Your task to perform on an android device: Add "acer nitro" to the cart on ebay.com Image 0: 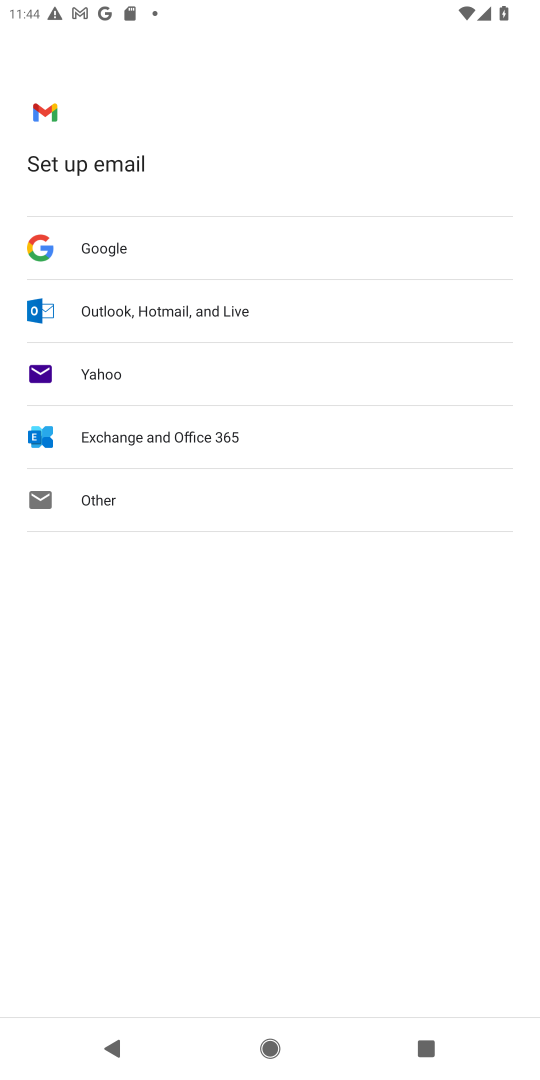
Step 0: press home button
Your task to perform on an android device: Add "acer nitro" to the cart on ebay.com Image 1: 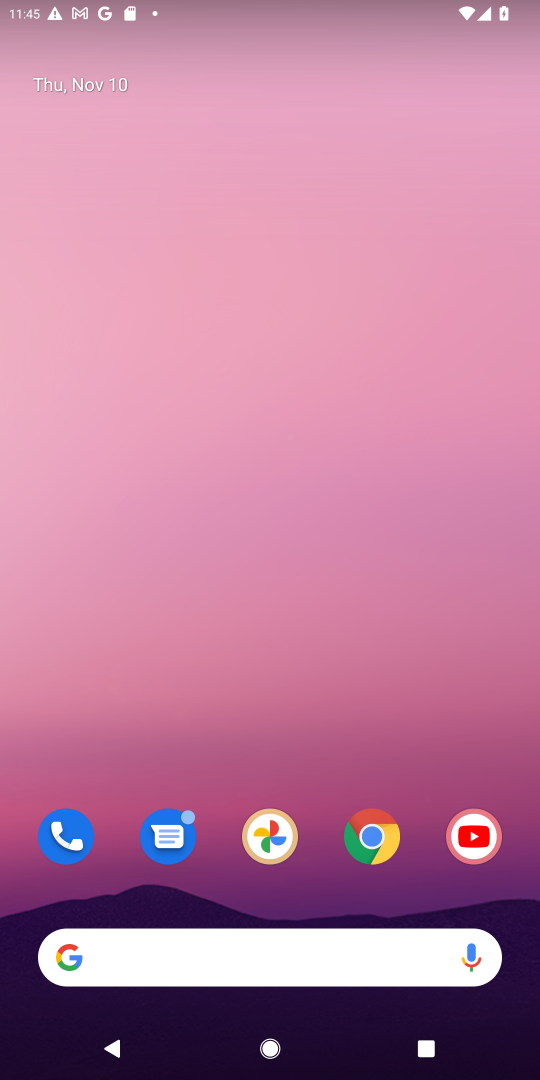
Step 1: click (262, 960)
Your task to perform on an android device: Add "acer nitro" to the cart on ebay.com Image 2: 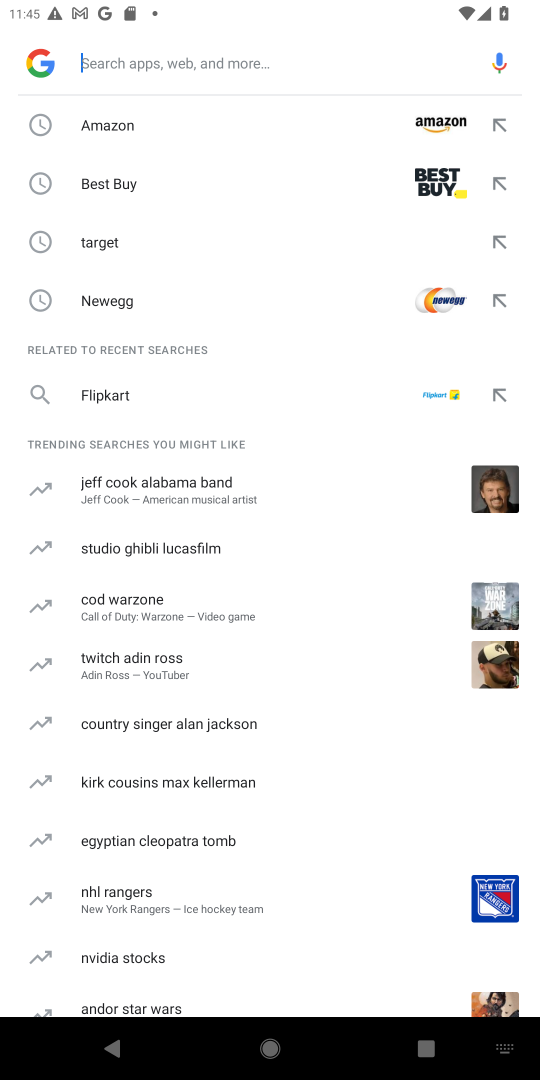
Step 2: type "ebay.com"
Your task to perform on an android device: Add "acer nitro" to the cart on ebay.com Image 3: 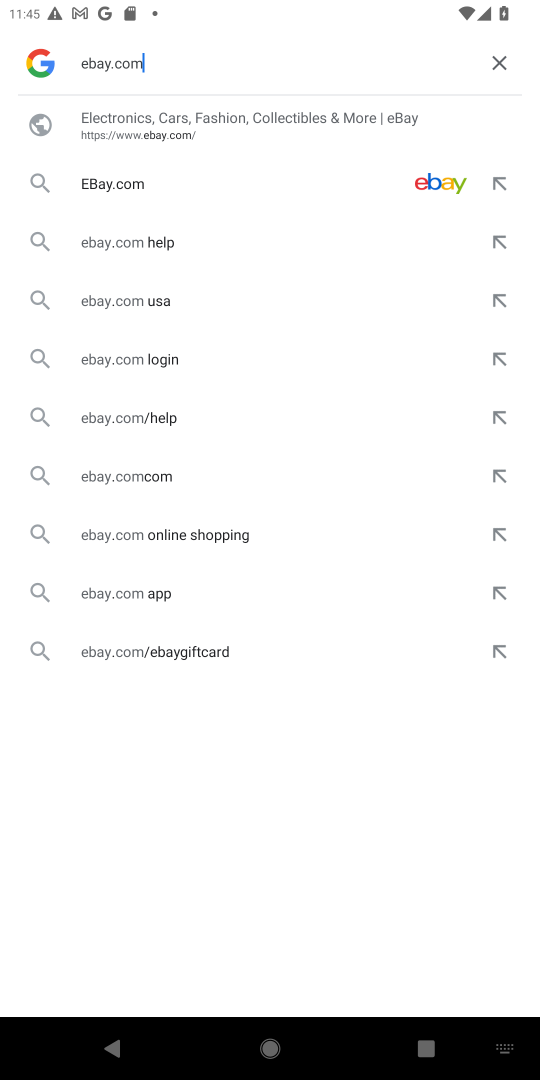
Step 3: click (306, 174)
Your task to perform on an android device: Add "acer nitro" to the cart on ebay.com Image 4: 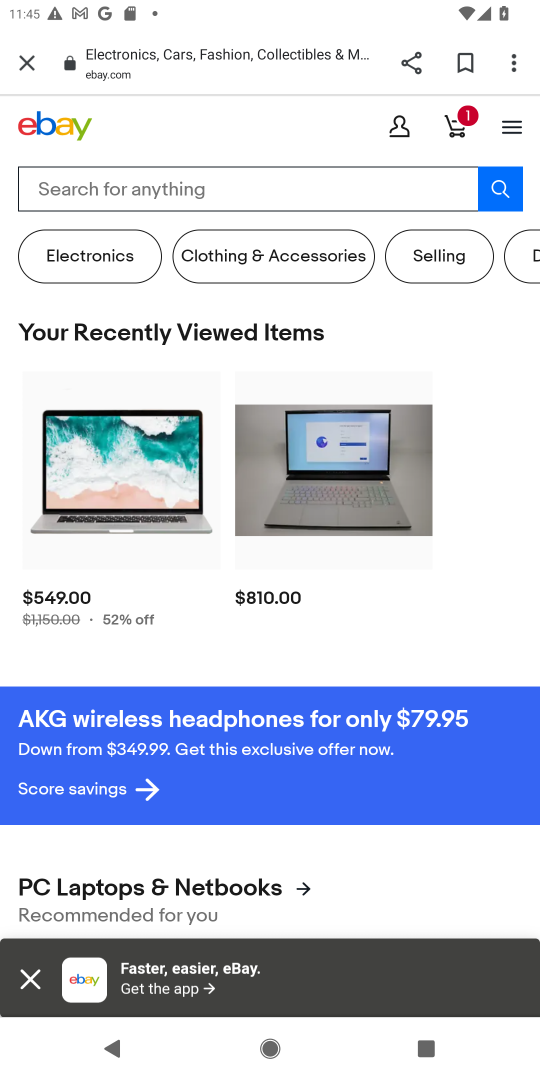
Step 4: click (213, 189)
Your task to perform on an android device: Add "acer nitro" to the cart on ebay.com Image 5: 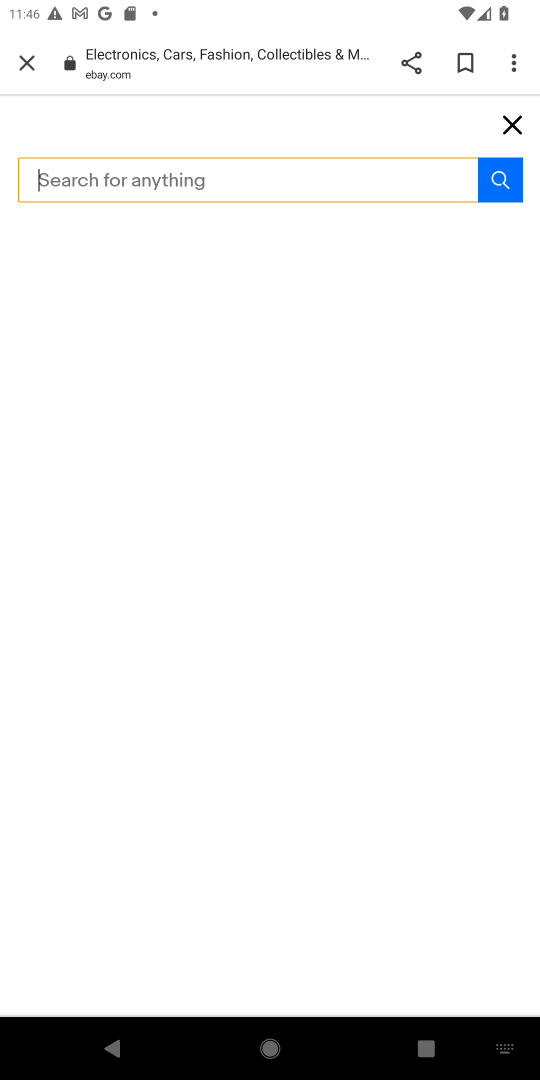
Step 5: type "acer nitro"
Your task to perform on an android device: Add "acer nitro" to the cart on ebay.com Image 6: 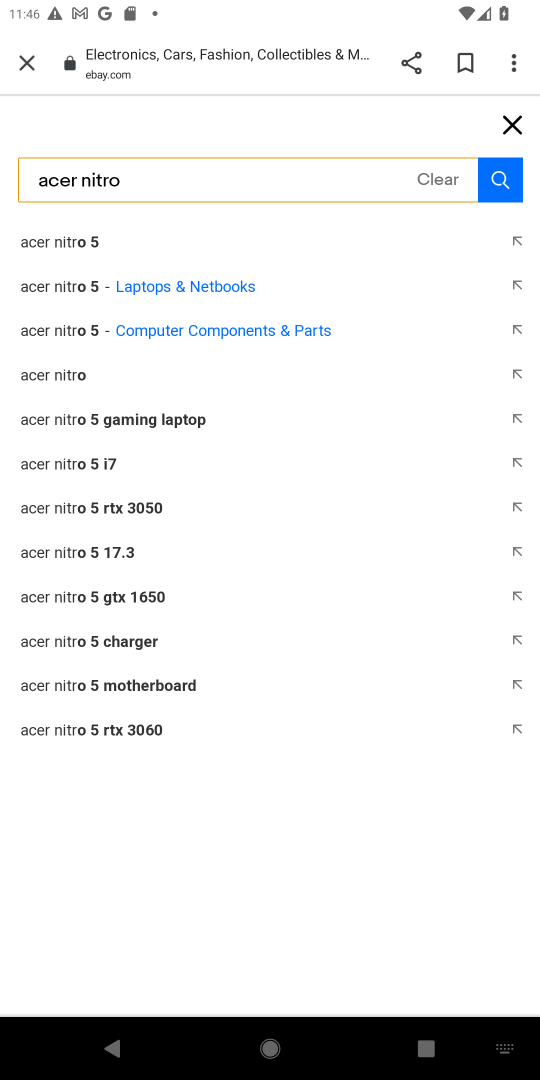
Step 6: click (45, 378)
Your task to perform on an android device: Add "acer nitro" to the cart on ebay.com Image 7: 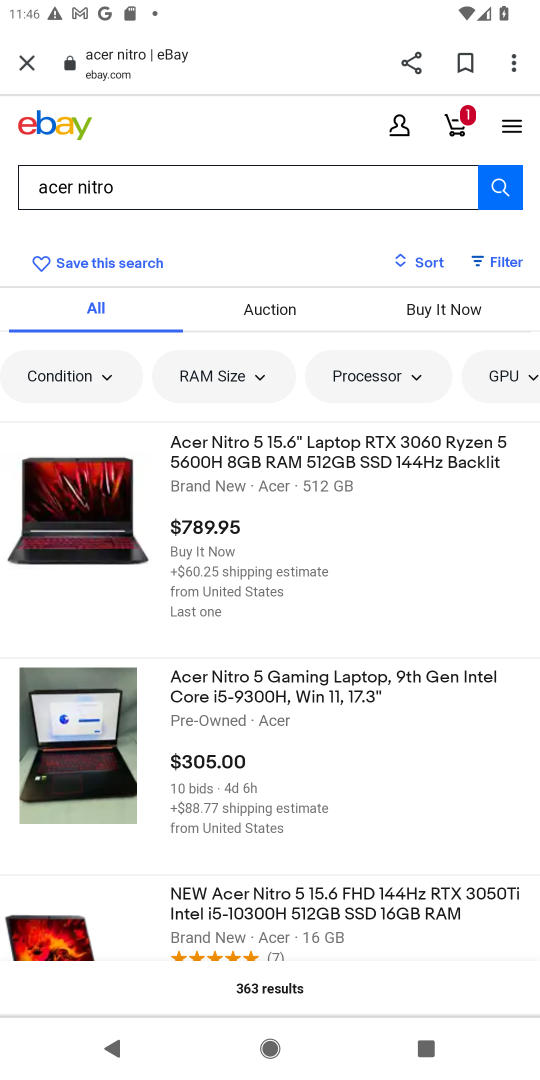
Step 7: click (233, 450)
Your task to perform on an android device: Add "acer nitro" to the cart on ebay.com Image 8: 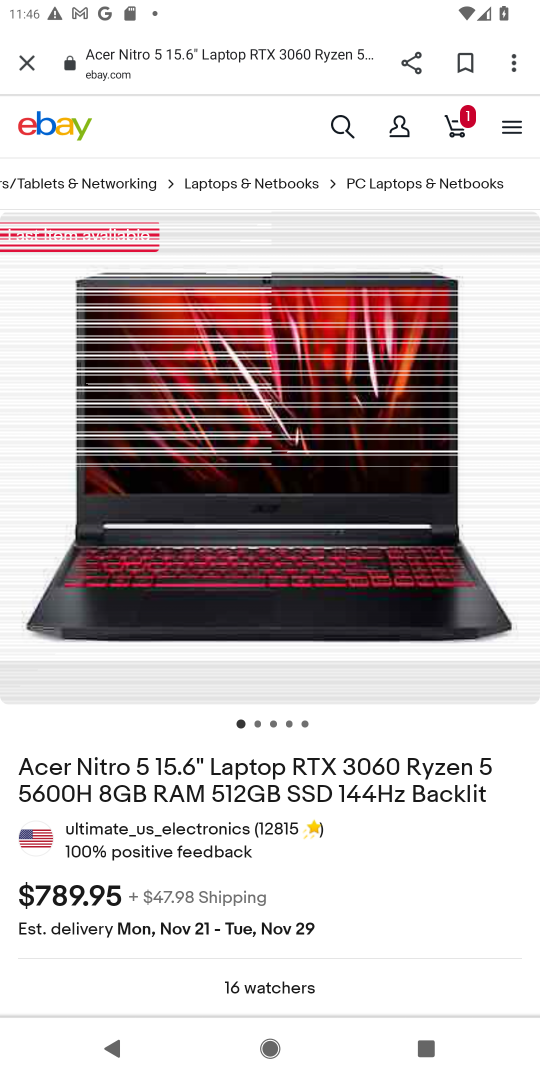
Step 8: drag from (225, 799) to (244, 497)
Your task to perform on an android device: Add "acer nitro" to the cart on ebay.com Image 9: 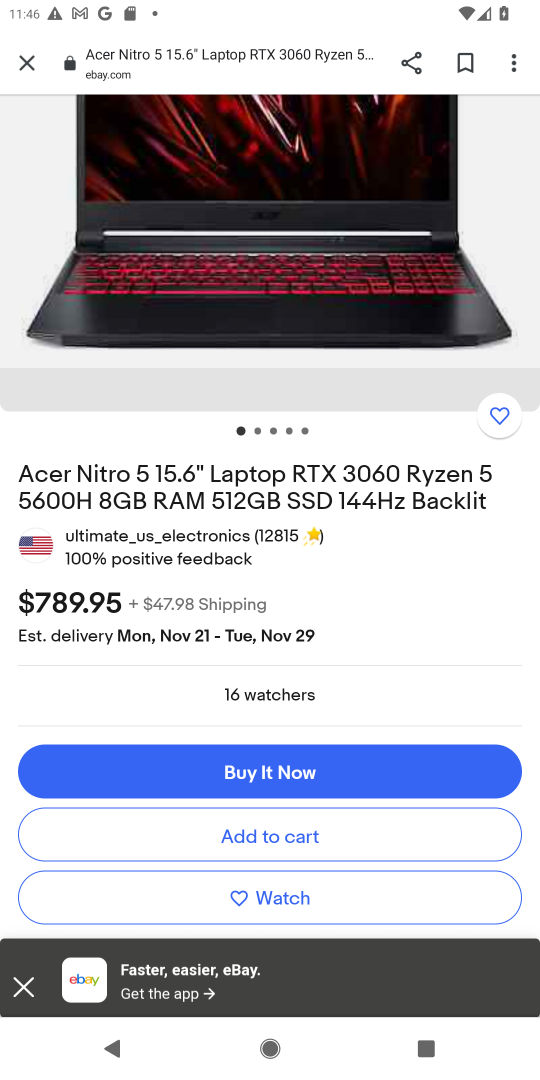
Step 9: click (261, 834)
Your task to perform on an android device: Add "acer nitro" to the cart on ebay.com Image 10: 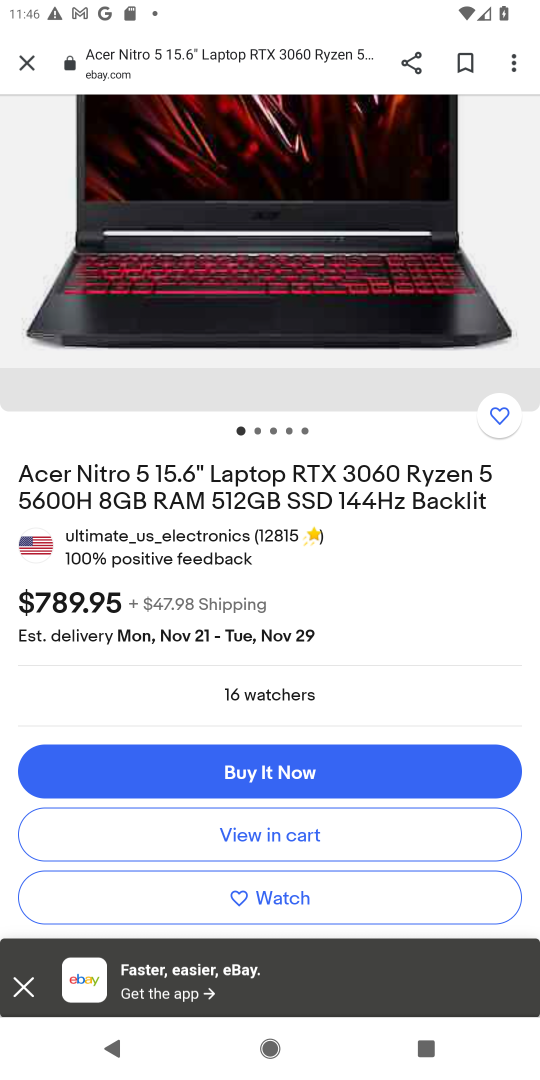
Step 10: task complete